Your task to perform on an android device: Open location settings Image 0: 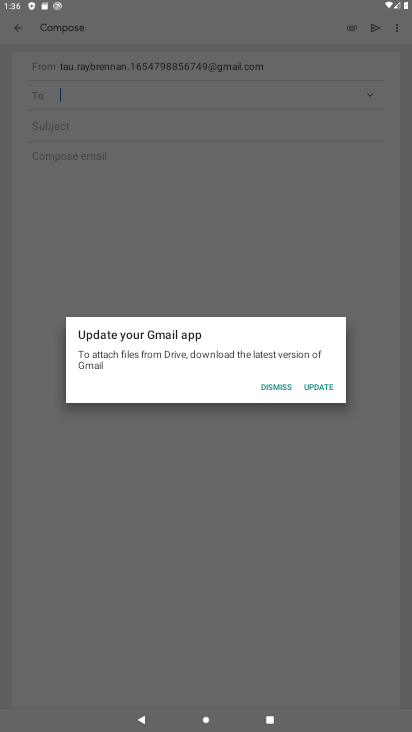
Step 0: press home button
Your task to perform on an android device: Open location settings Image 1: 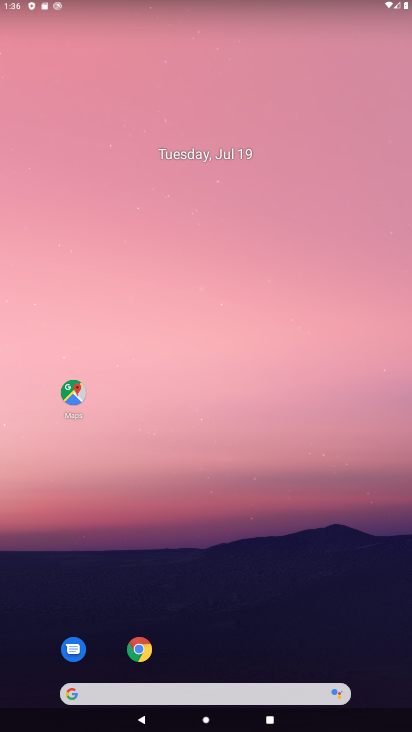
Step 1: drag from (335, 627) to (180, 140)
Your task to perform on an android device: Open location settings Image 2: 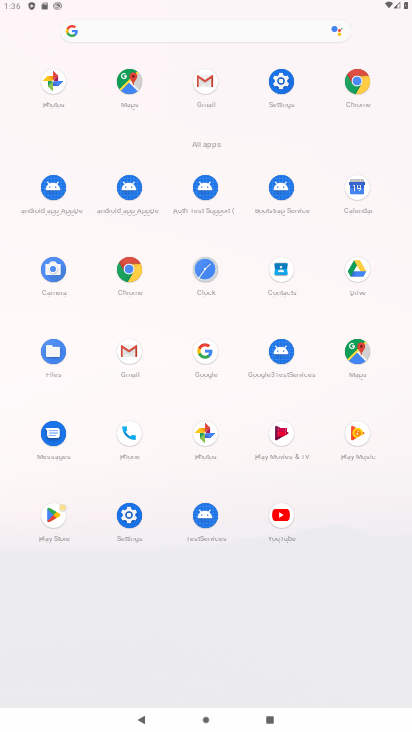
Step 2: click (285, 88)
Your task to perform on an android device: Open location settings Image 3: 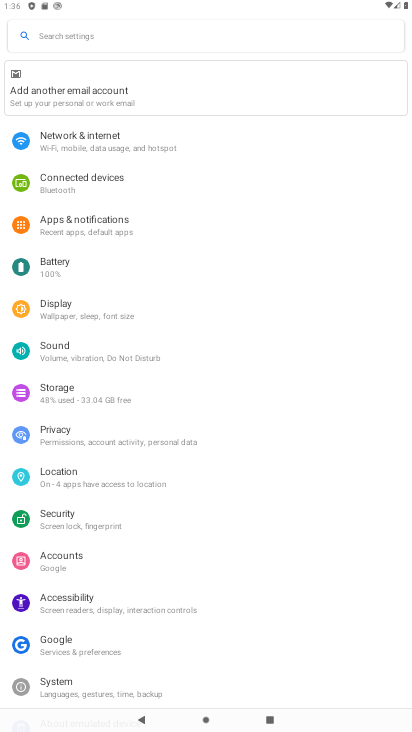
Step 3: click (63, 477)
Your task to perform on an android device: Open location settings Image 4: 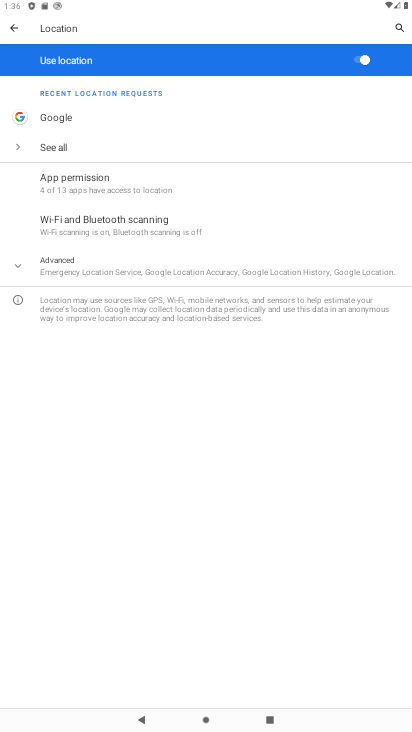
Step 4: task complete